Your task to perform on an android device: Search for Italian restaurants on Maps Image 0: 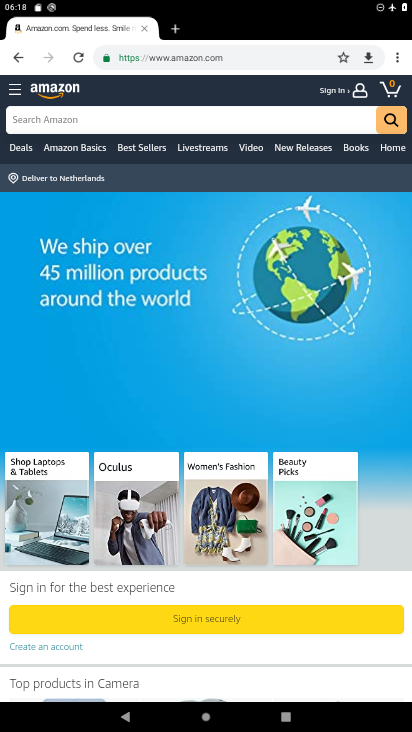
Step 0: press home button
Your task to perform on an android device: Search for Italian restaurants on Maps Image 1: 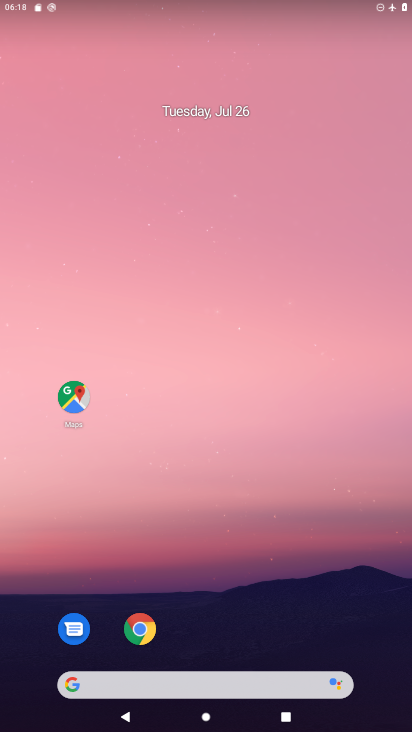
Step 1: click (66, 397)
Your task to perform on an android device: Search for Italian restaurants on Maps Image 2: 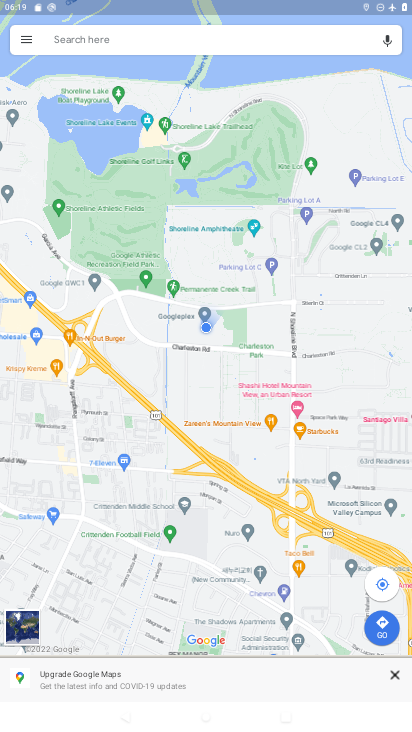
Step 2: click (93, 43)
Your task to perform on an android device: Search for Italian restaurants on Maps Image 3: 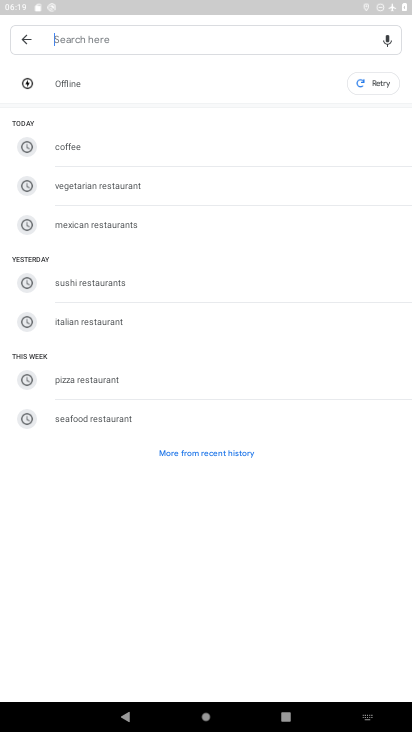
Step 3: click (110, 313)
Your task to perform on an android device: Search for Italian restaurants on Maps Image 4: 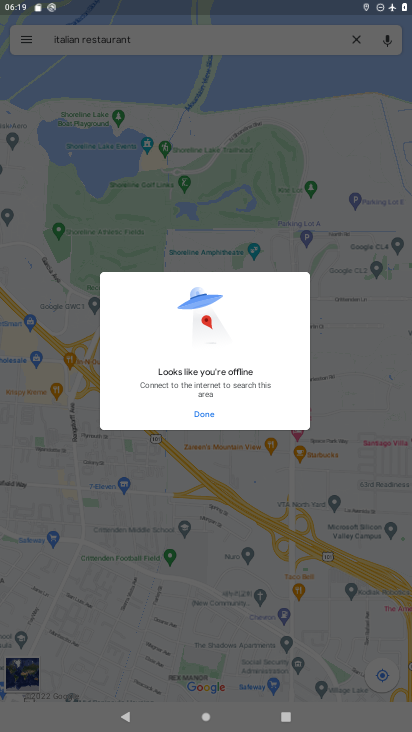
Step 4: task complete